Your task to perform on an android device: See recent photos Image 0: 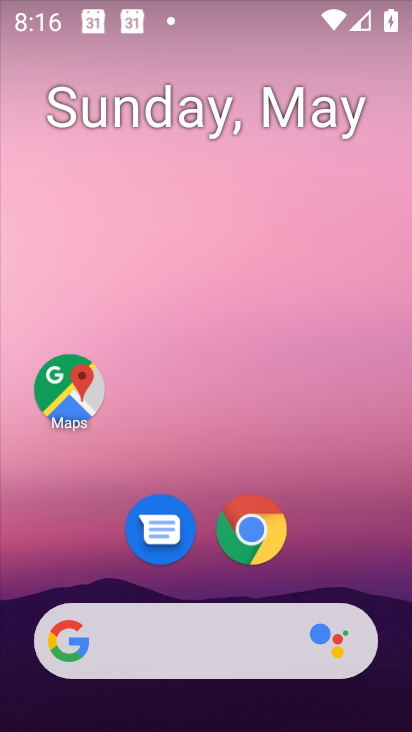
Step 0: drag from (354, 573) to (248, 1)
Your task to perform on an android device: See recent photos Image 1: 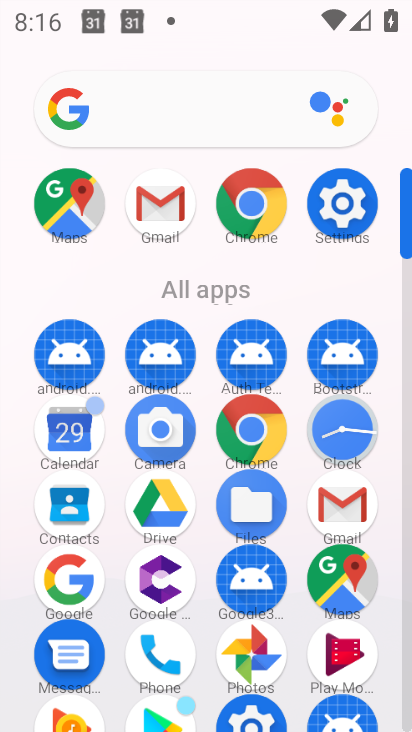
Step 1: click (269, 649)
Your task to perform on an android device: See recent photos Image 2: 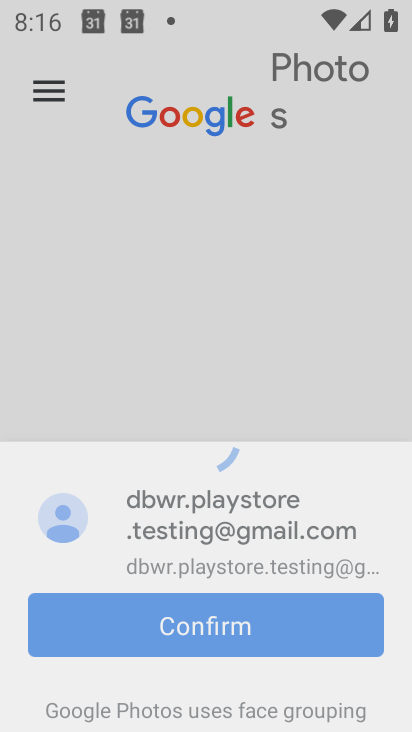
Step 2: task complete